Your task to perform on an android device: turn off location Image 0: 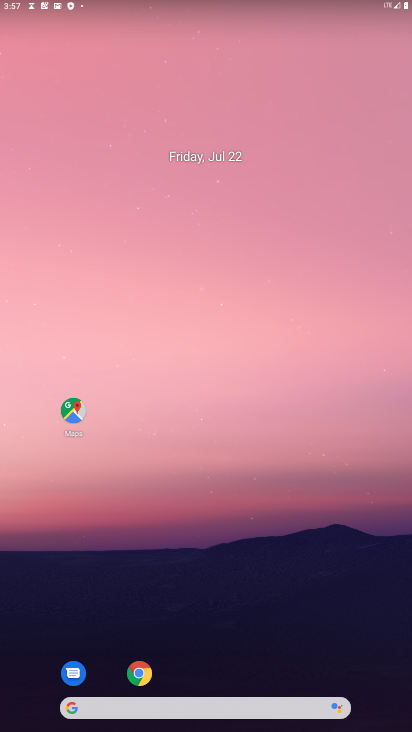
Step 0: drag from (231, 628) to (264, 53)
Your task to perform on an android device: turn off location Image 1: 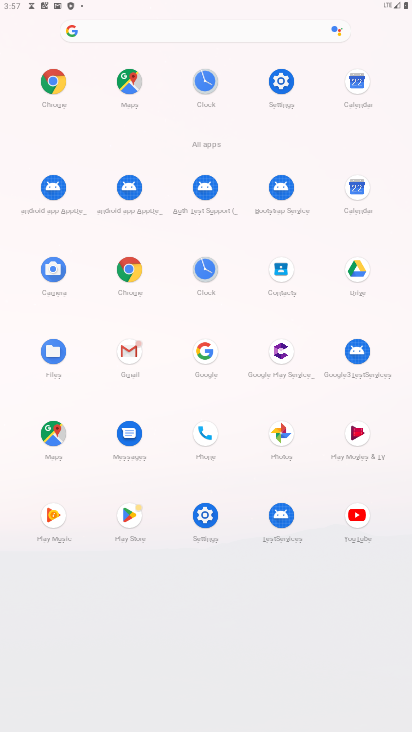
Step 1: click (284, 78)
Your task to perform on an android device: turn off location Image 2: 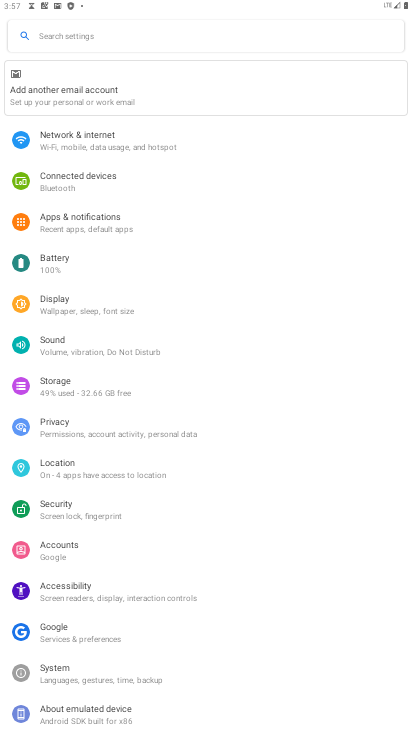
Step 2: click (75, 470)
Your task to perform on an android device: turn off location Image 3: 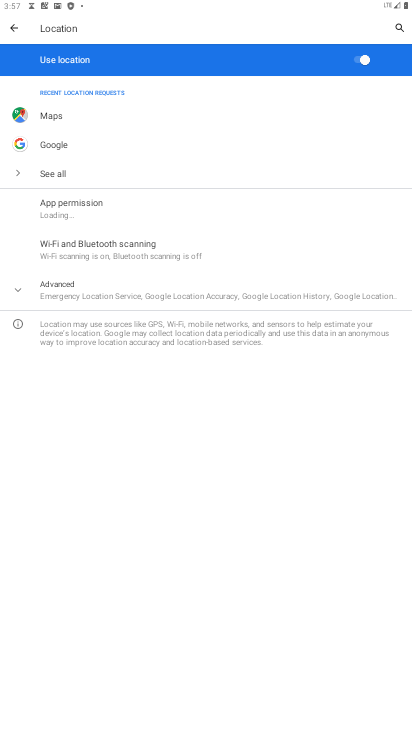
Step 3: click (374, 61)
Your task to perform on an android device: turn off location Image 4: 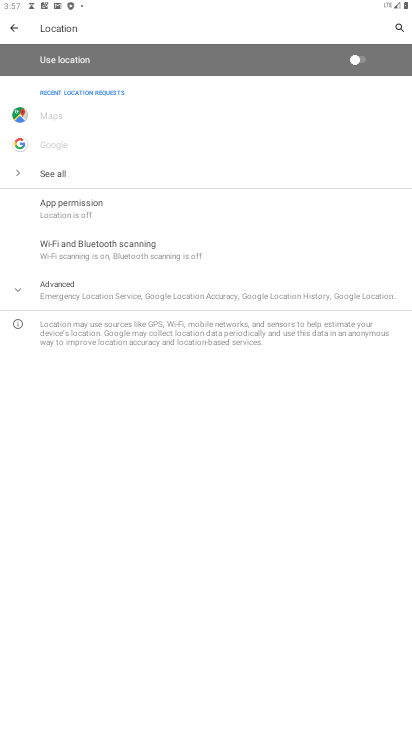
Step 4: task complete